Your task to perform on an android device: Go to display settings Image 0: 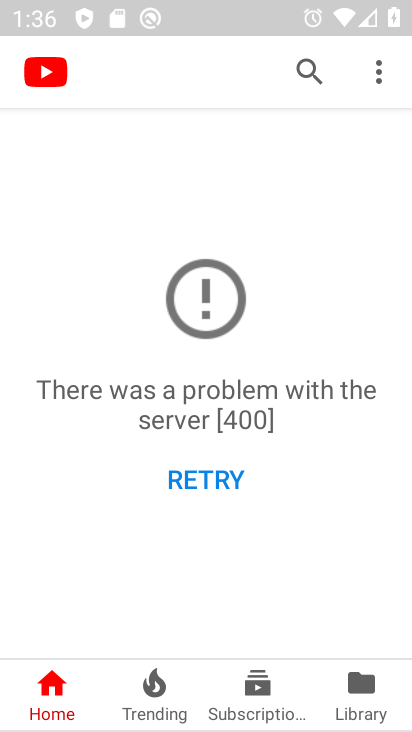
Step 0: press home button
Your task to perform on an android device: Go to display settings Image 1: 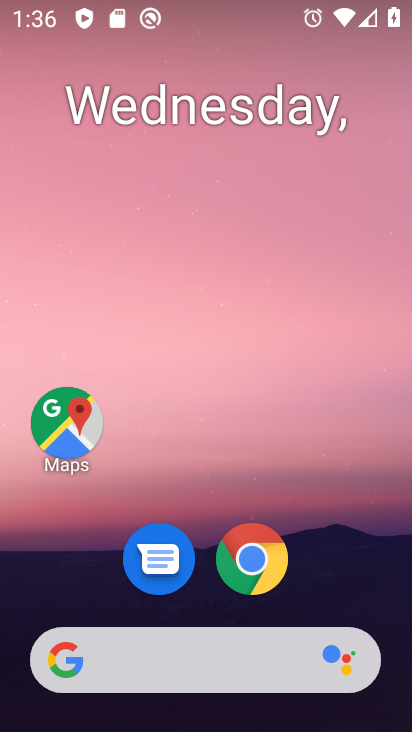
Step 1: drag from (344, 565) to (325, 21)
Your task to perform on an android device: Go to display settings Image 2: 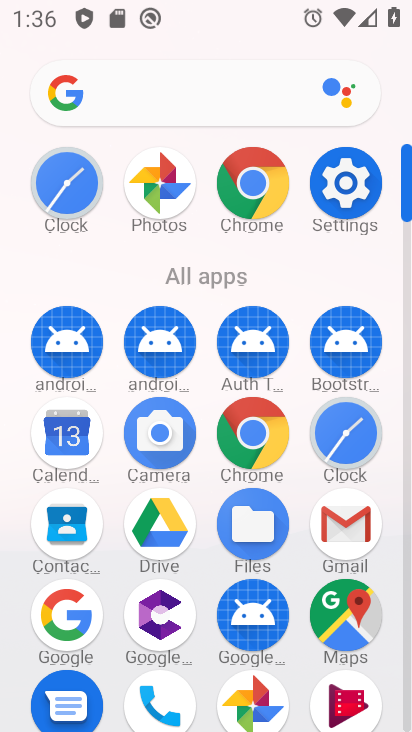
Step 2: click (352, 199)
Your task to perform on an android device: Go to display settings Image 3: 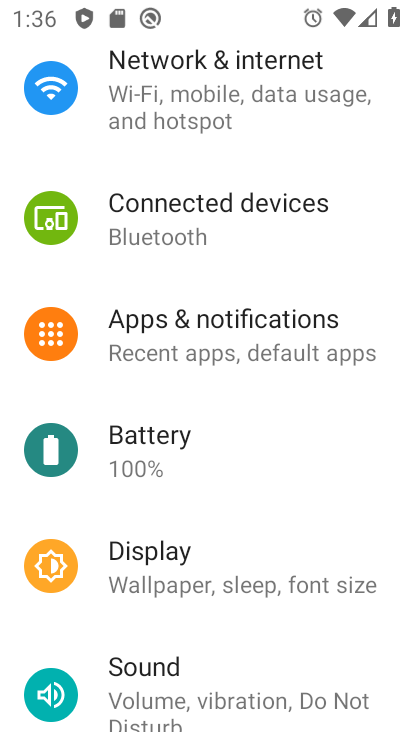
Step 3: click (159, 552)
Your task to perform on an android device: Go to display settings Image 4: 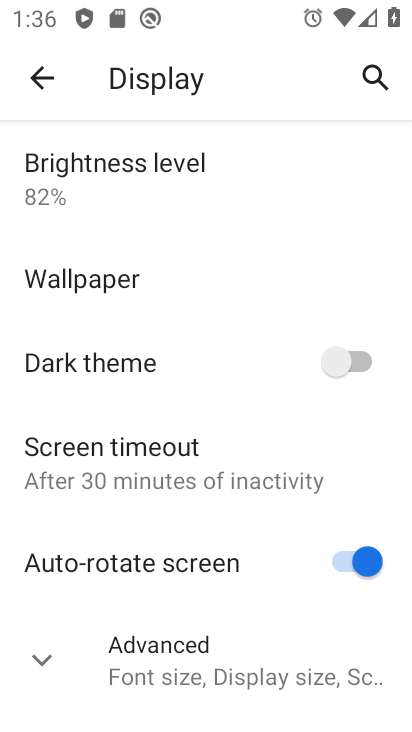
Step 4: task complete